Your task to perform on an android device: open wifi settings Image 0: 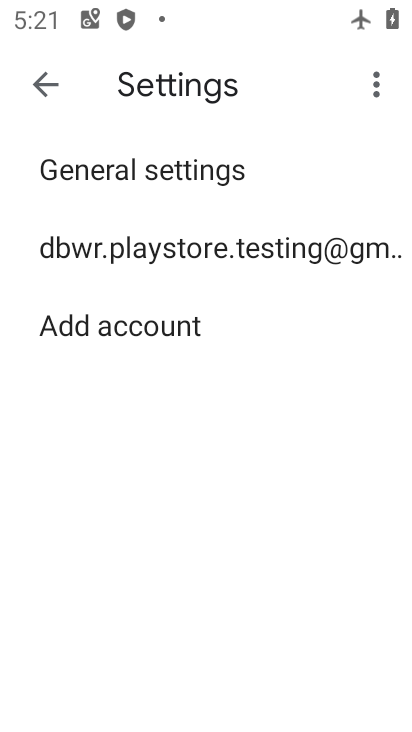
Step 0: press home button
Your task to perform on an android device: open wifi settings Image 1: 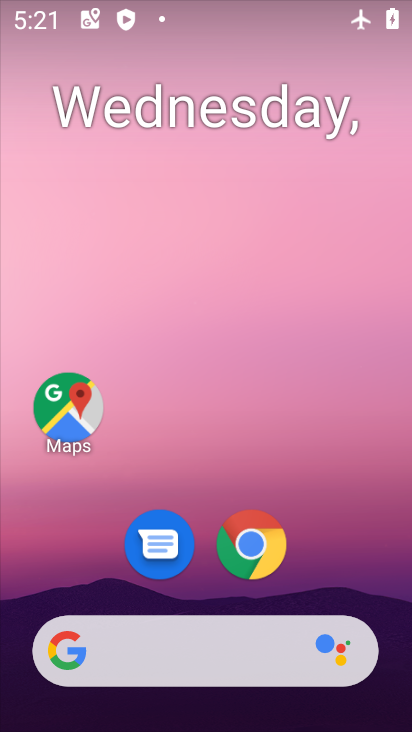
Step 1: drag from (396, 638) to (347, 61)
Your task to perform on an android device: open wifi settings Image 2: 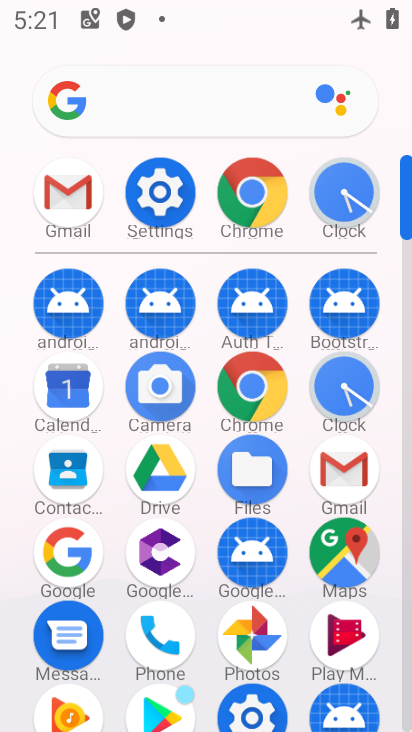
Step 2: click (174, 195)
Your task to perform on an android device: open wifi settings Image 3: 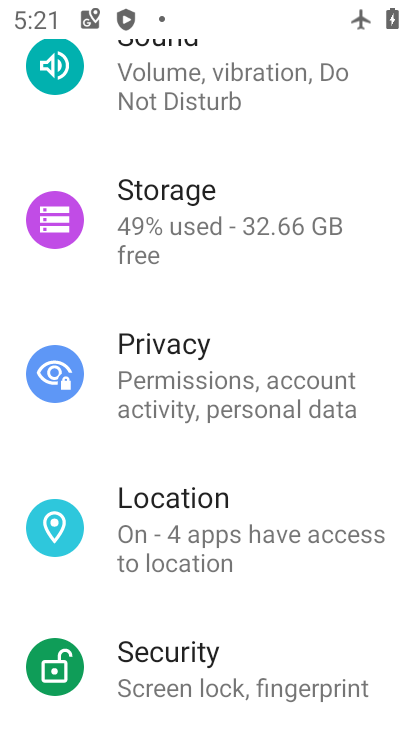
Step 3: drag from (256, 106) to (277, 504)
Your task to perform on an android device: open wifi settings Image 4: 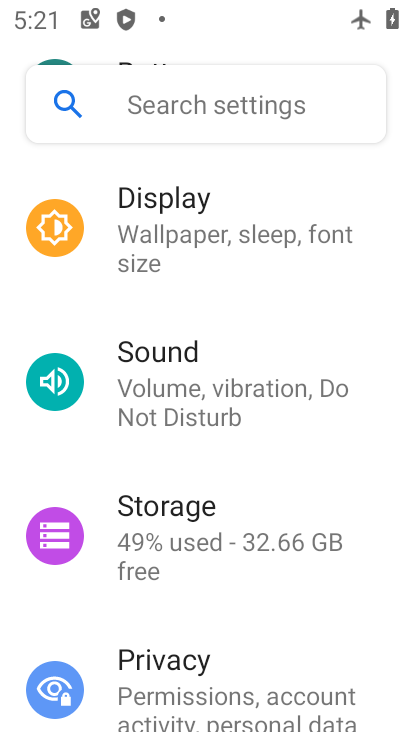
Step 4: drag from (249, 180) to (274, 558)
Your task to perform on an android device: open wifi settings Image 5: 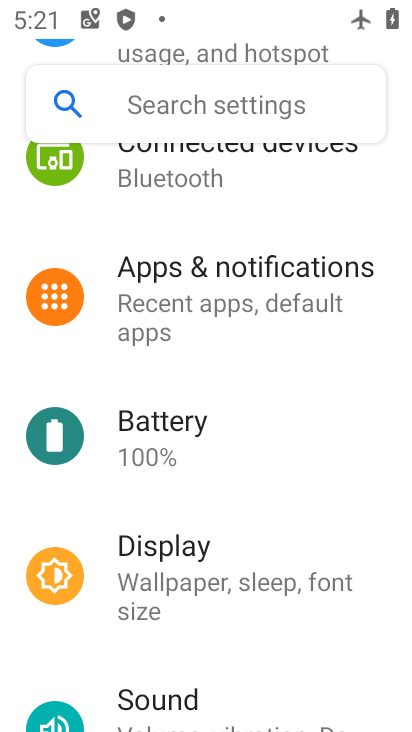
Step 5: drag from (282, 217) to (291, 627)
Your task to perform on an android device: open wifi settings Image 6: 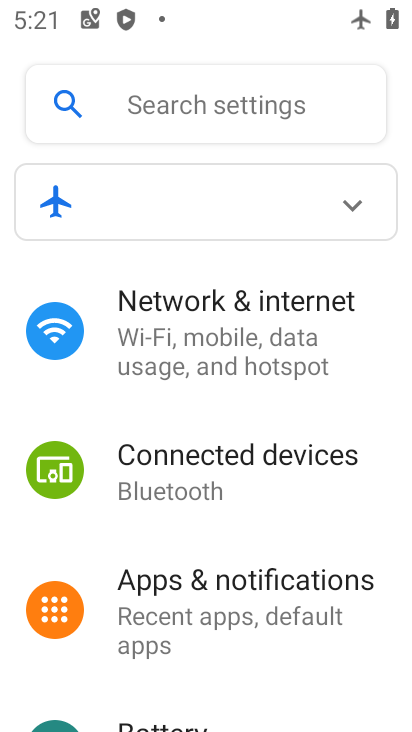
Step 6: click (257, 326)
Your task to perform on an android device: open wifi settings Image 7: 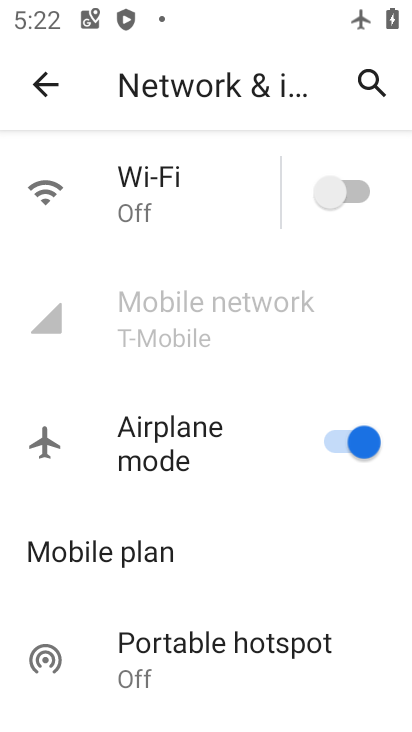
Step 7: click (165, 200)
Your task to perform on an android device: open wifi settings Image 8: 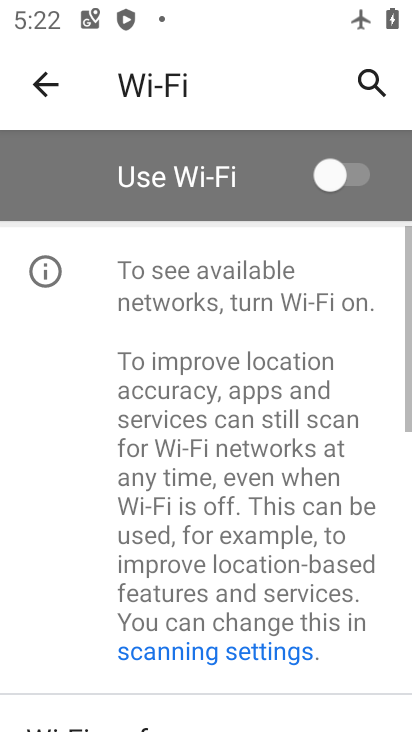
Step 8: task complete